Your task to perform on an android device: Go to Maps Image 0: 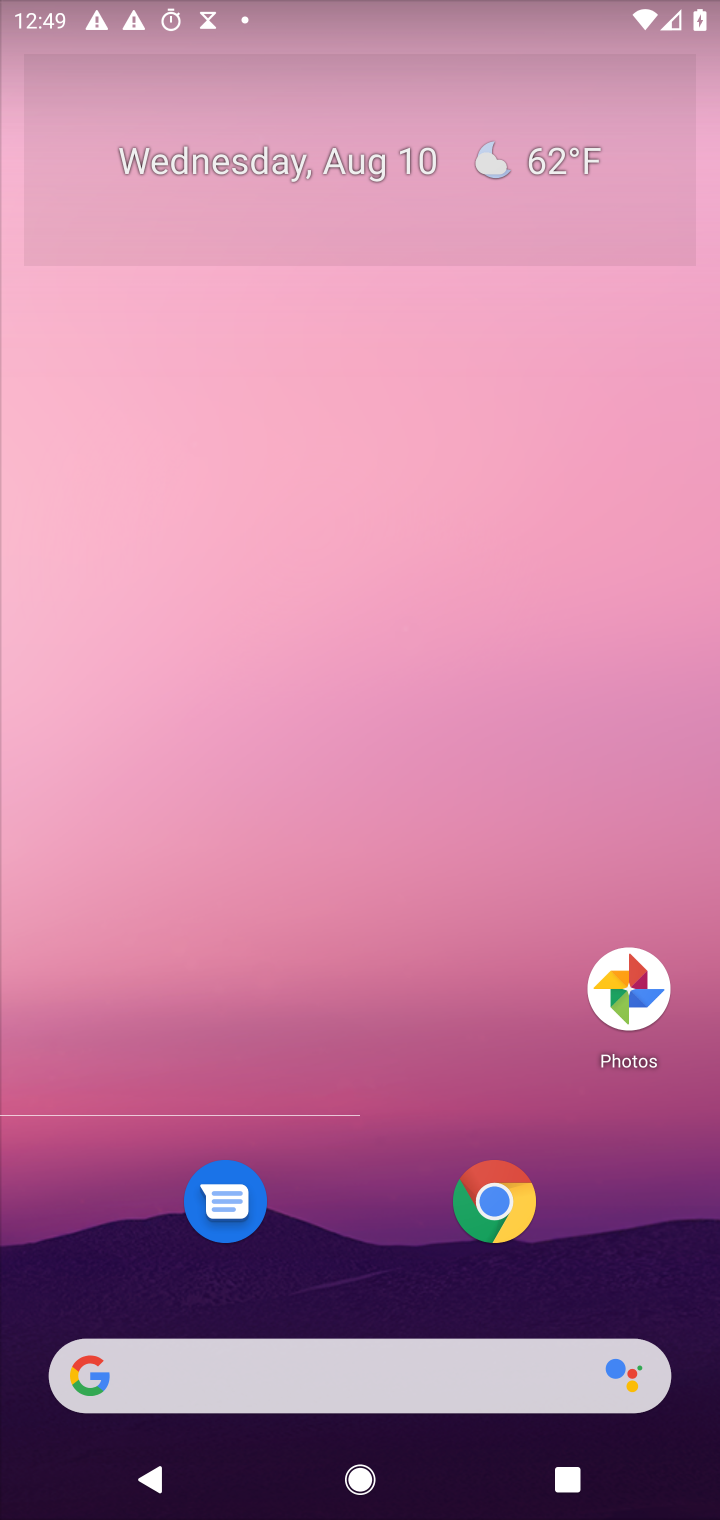
Step 0: click (294, 313)
Your task to perform on an android device: Go to Maps Image 1: 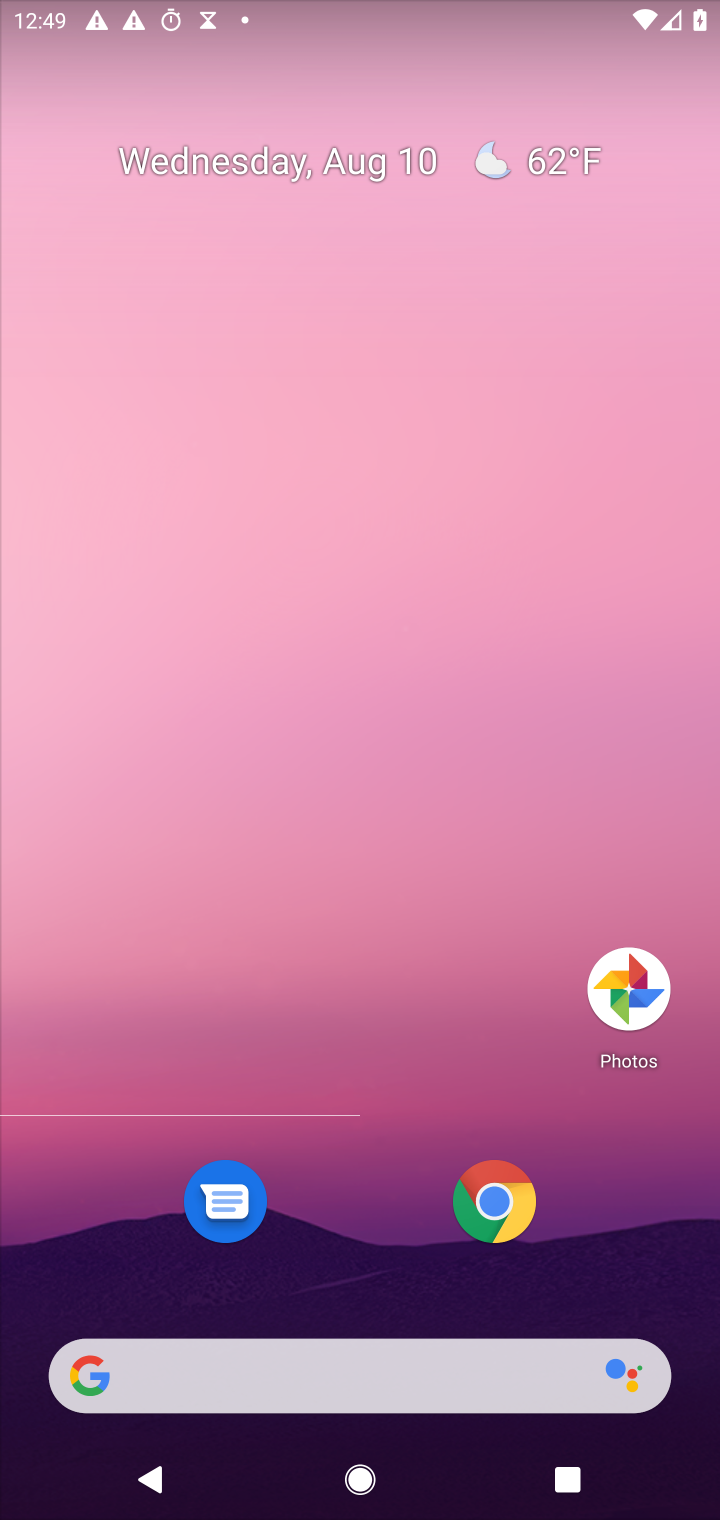
Step 1: drag from (337, 1205) to (318, 194)
Your task to perform on an android device: Go to Maps Image 2: 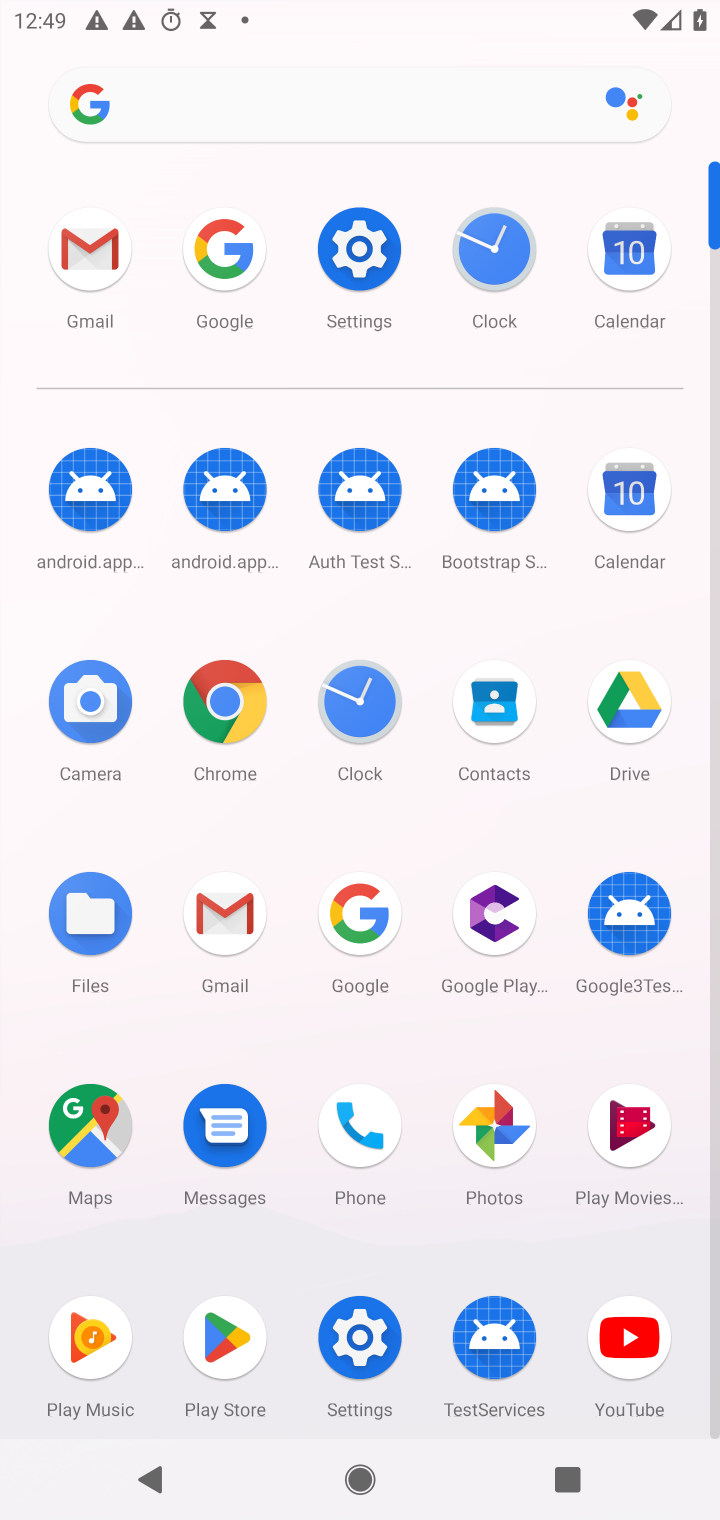
Step 2: click (97, 1131)
Your task to perform on an android device: Go to Maps Image 3: 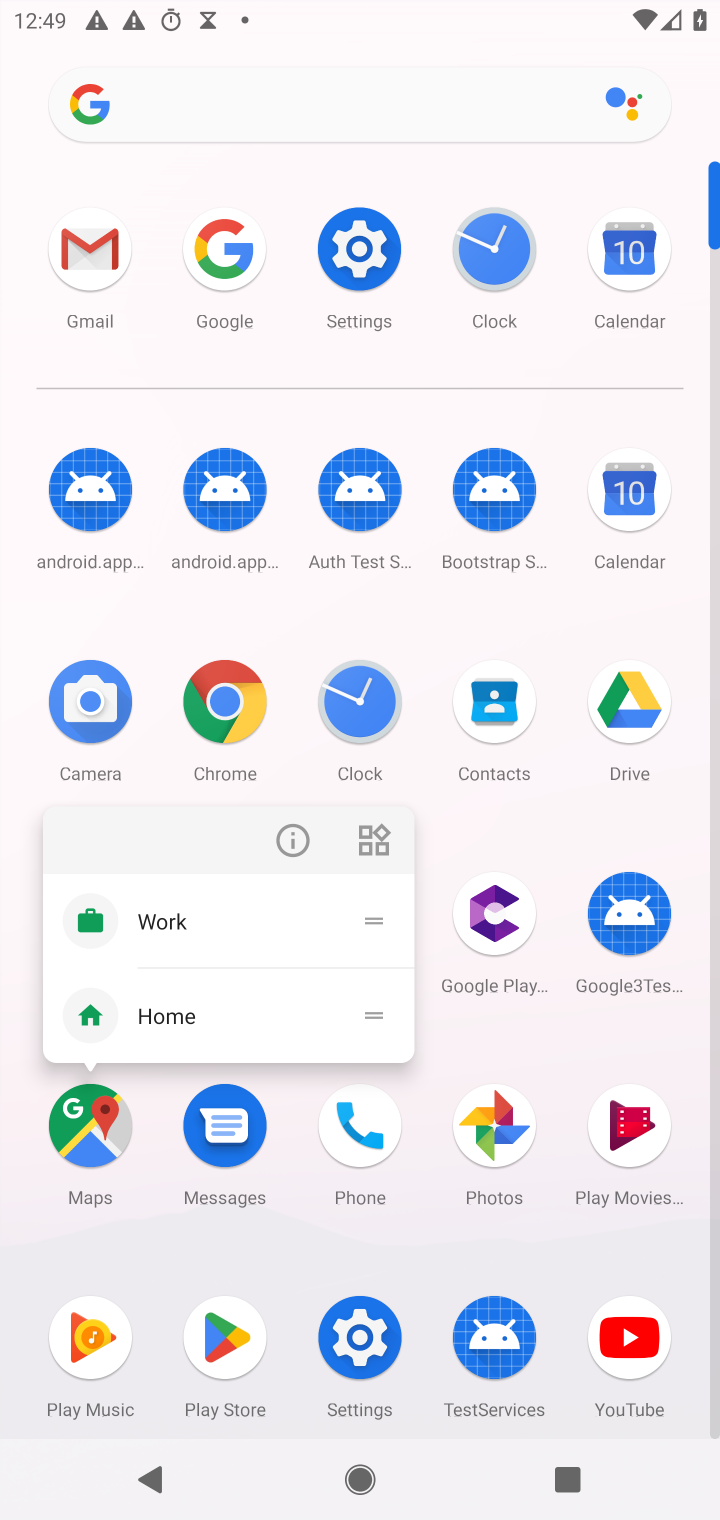
Step 3: click (102, 1134)
Your task to perform on an android device: Go to Maps Image 4: 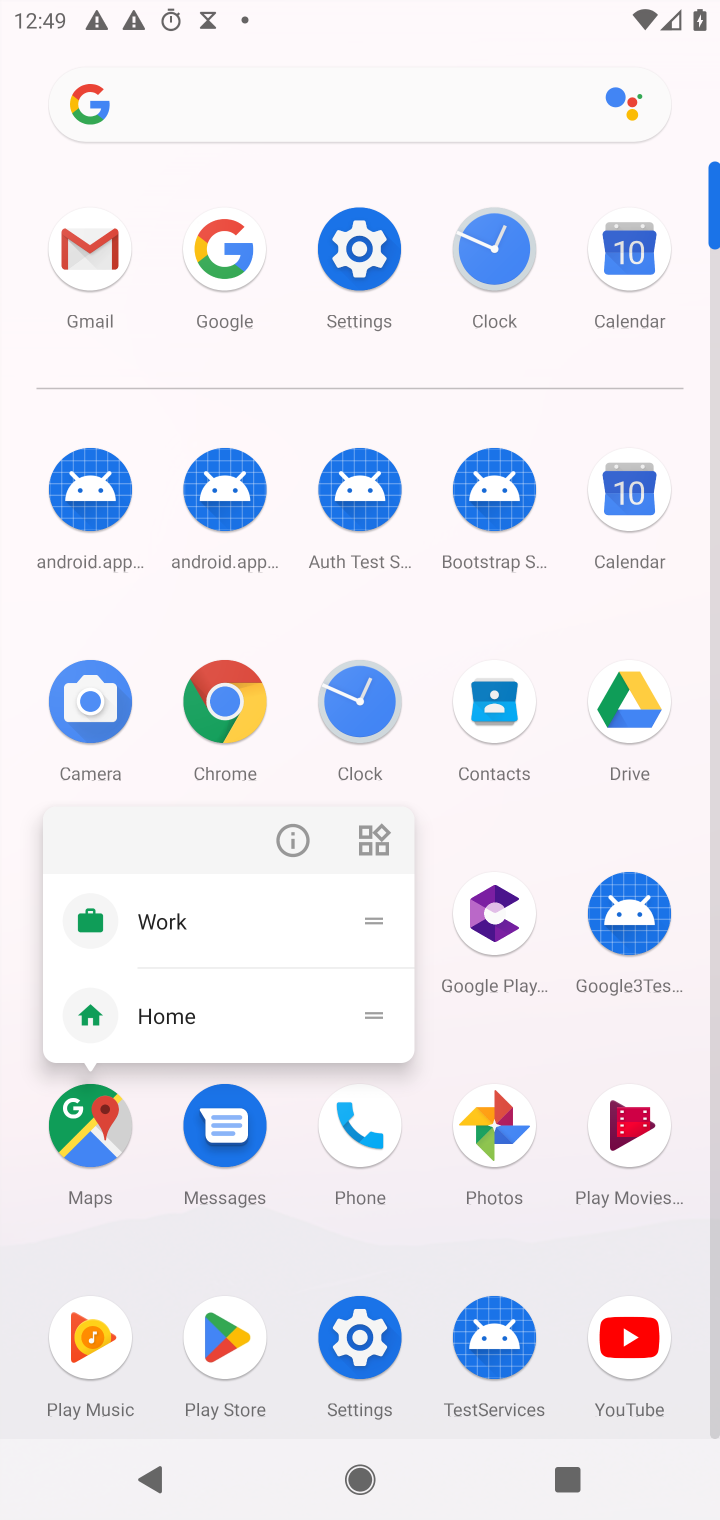
Step 4: click (105, 1109)
Your task to perform on an android device: Go to Maps Image 5: 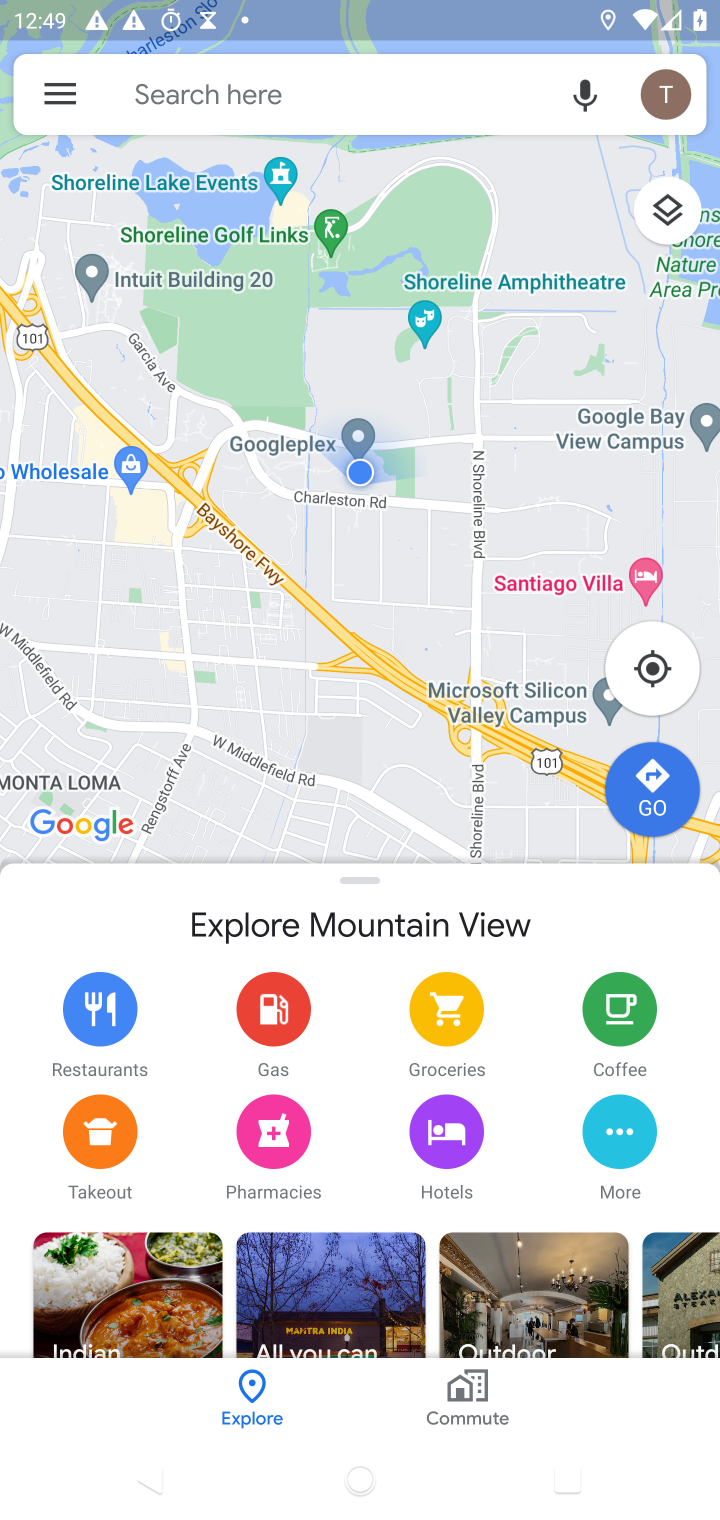
Step 5: task complete